Your task to perform on an android device: refresh tabs in the chrome app Image 0: 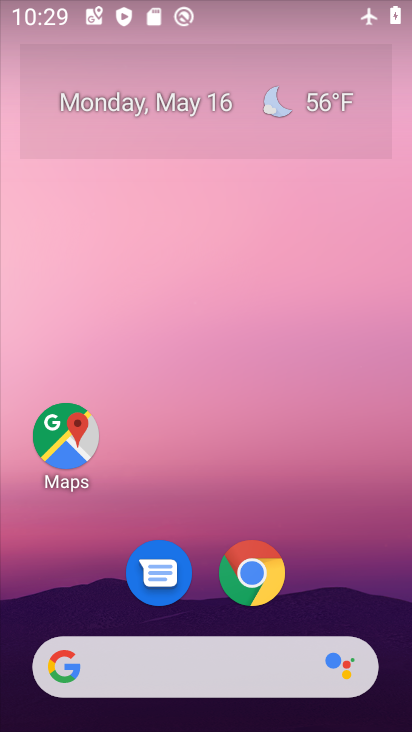
Step 0: click (271, 556)
Your task to perform on an android device: refresh tabs in the chrome app Image 1: 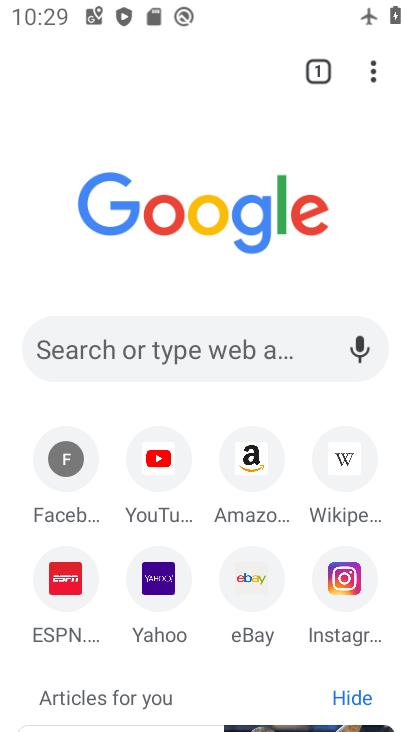
Step 1: click (371, 74)
Your task to perform on an android device: refresh tabs in the chrome app Image 2: 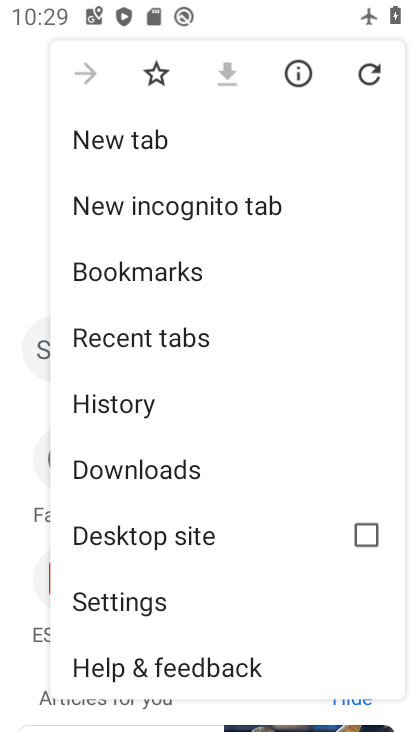
Step 2: click (356, 73)
Your task to perform on an android device: refresh tabs in the chrome app Image 3: 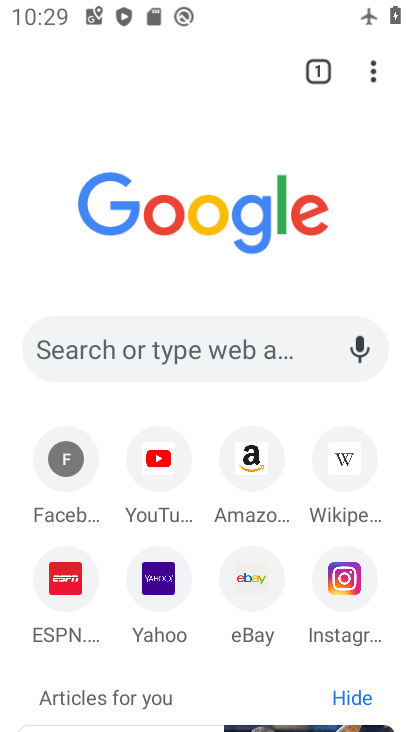
Step 3: task complete